Your task to perform on an android device: Turn off the flashlight Image 0: 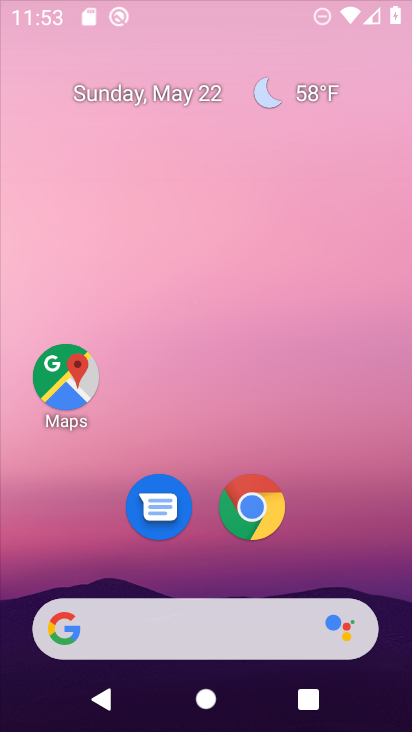
Step 0: click (219, 508)
Your task to perform on an android device: Turn off the flashlight Image 1: 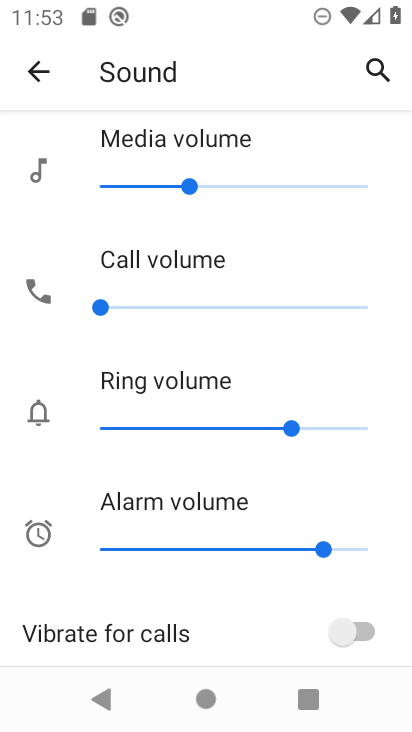
Step 1: task complete